Your task to perform on an android device: Go to eBay Image 0: 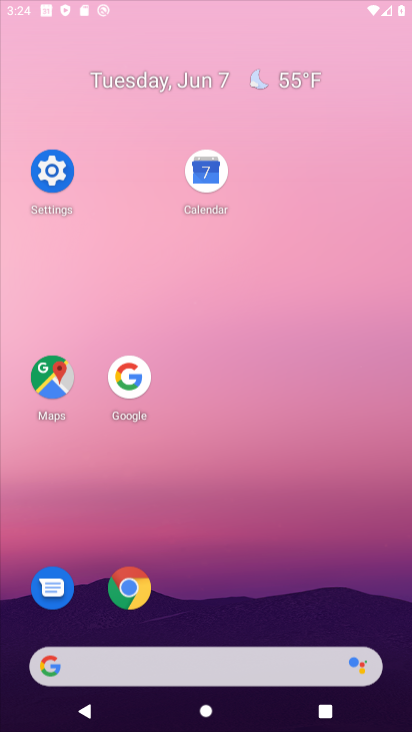
Step 0: click (54, 169)
Your task to perform on an android device: Go to eBay Image 1: 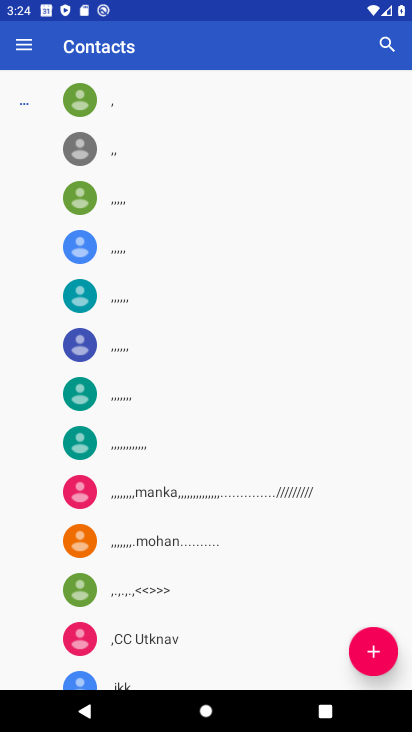
Step 1: press home button
Your task to perform on an android device: Go to eBay Image 2: 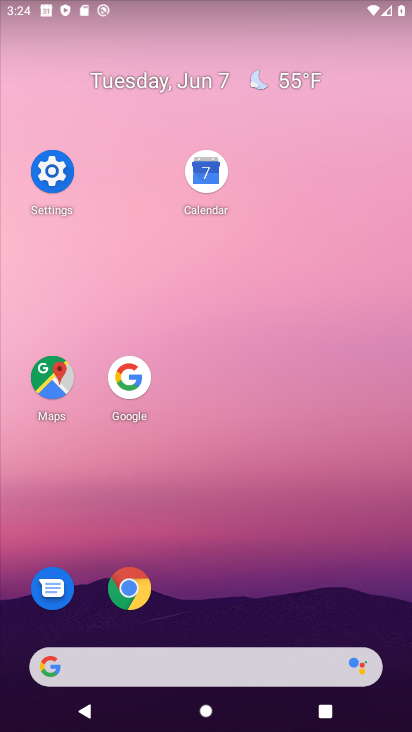
Step 2: click (134, 591)
Your task to perform on an android device: Go to eBay Image 3: 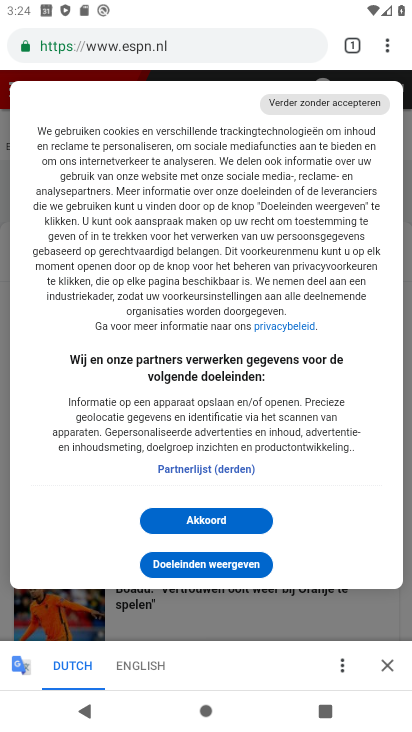
Step 3: click (355, 34)
Your task to perform on an android device: Go to eBay Image 4: 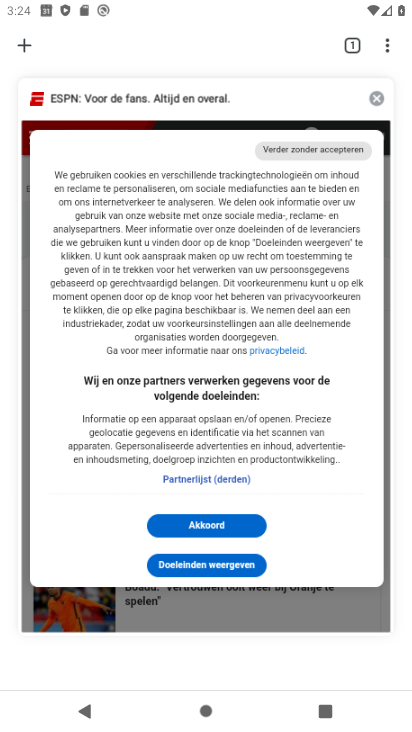
Step 4: click (39, 50)
Your task to perform on an android device: Go to eBay Image 5: 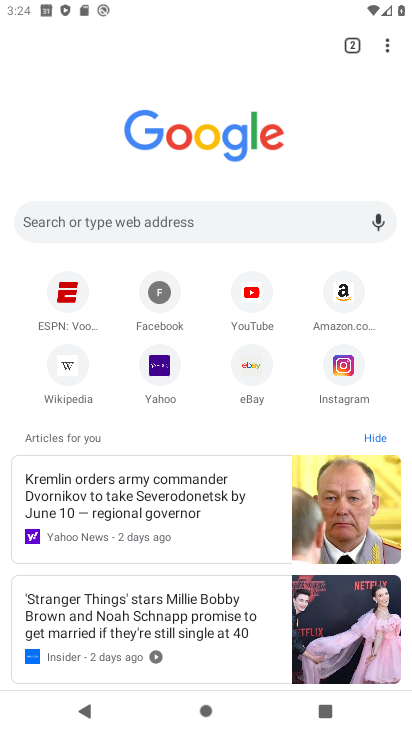
Step 5: click (247, 366)
Your task to perform on an android device: Go to eBay Image 6: 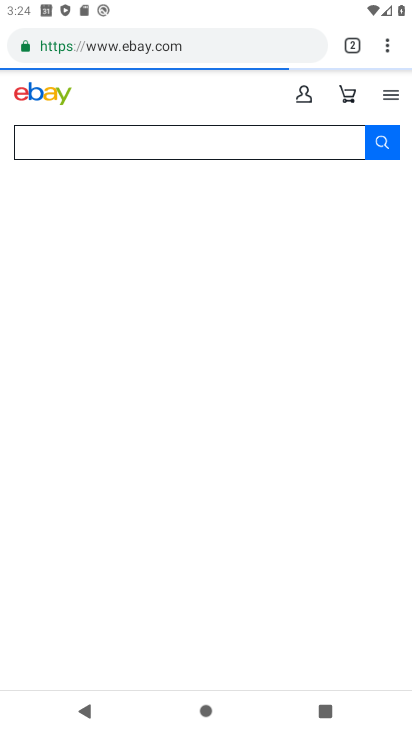
Step 6: task complete